Your task to perform on an android device: delete the emails in spam in the gmail app Image 0: 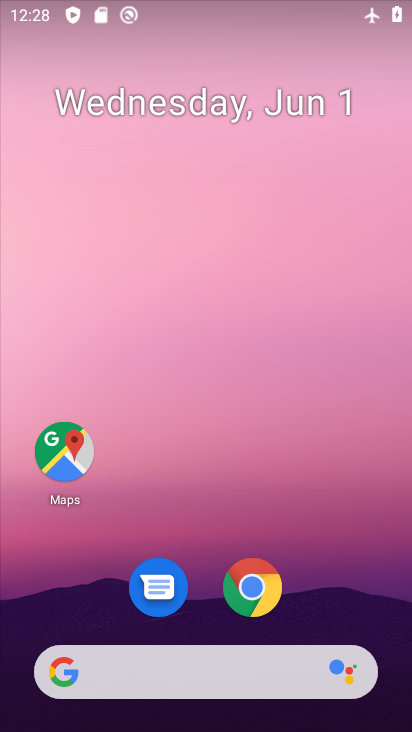
Step 0: drag from (313, 527) to (260, 7)
Your task to perform on an android device: delete the emails in spam in the gmail app Image 1: 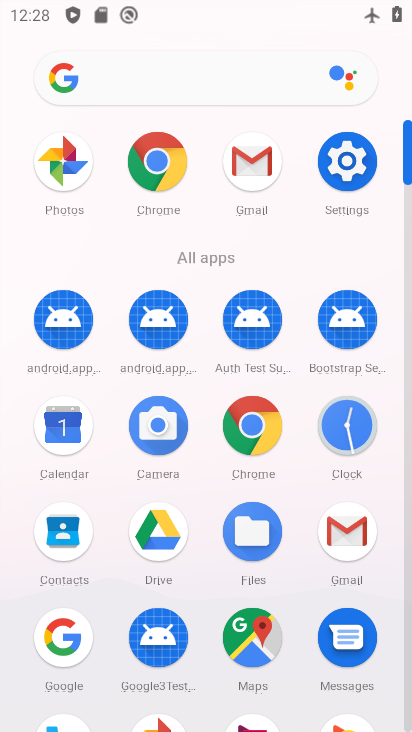
Step 1: click (241, 164)
Your task to perform on an android device: delete the emails in spam in the gmail app Image 2: 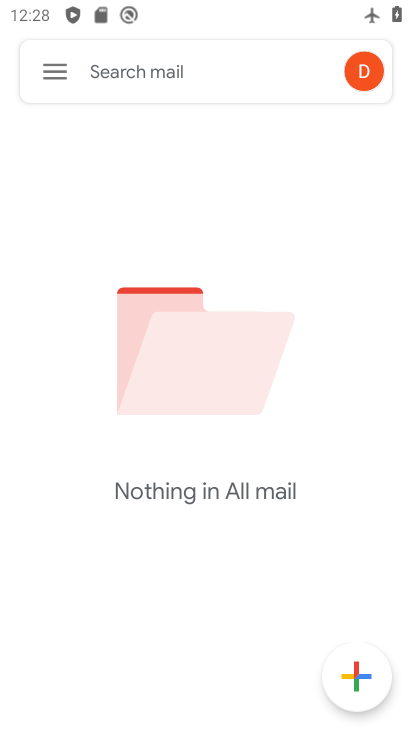
Step 2: click (57, 66)
Your task to perform on an android device: delete the emails in spam in the gmail app Image 3: 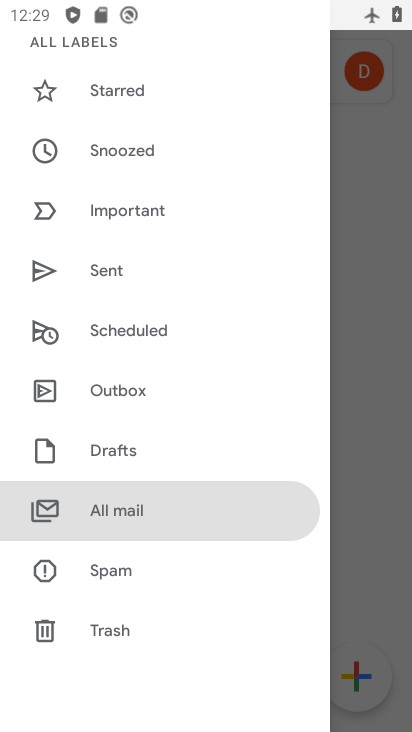
Step 3: click (101, 570)
Your task to perform on an android device: delete the emails in spam in the gmail app Image 4: 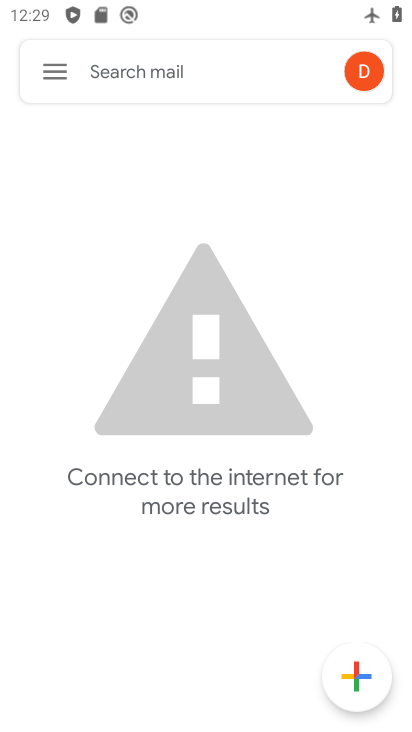
Step 4: task complete